Your task to perform on an android device: Open location settings Image 0: 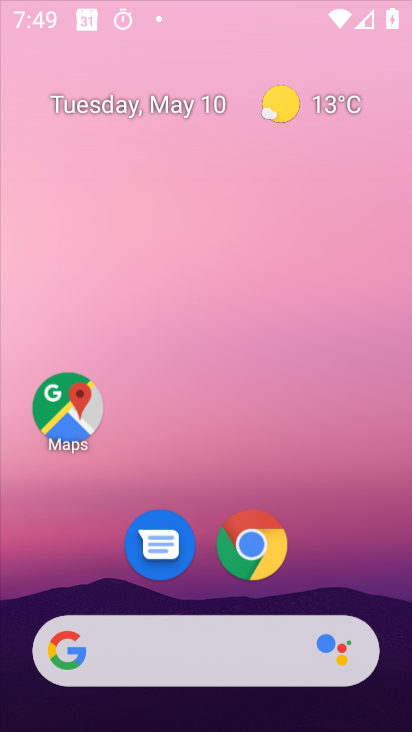
Step 0: drag from (207, 434) to (215, 57)
Your task to perform on an android device: Open location settings Image 1: 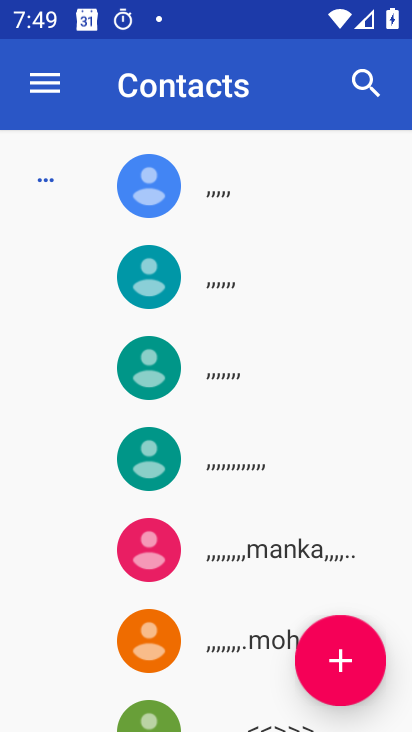
Step 1: press home button
Your task to perform on an android device: Open location settings Image 2: 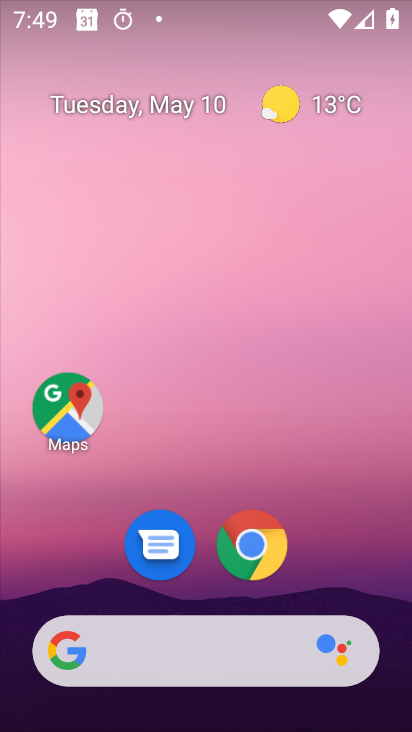
Step 2: drag from (204, 589) to (224, 51)
Your task to perform on an android device: Open location settings Image 3: 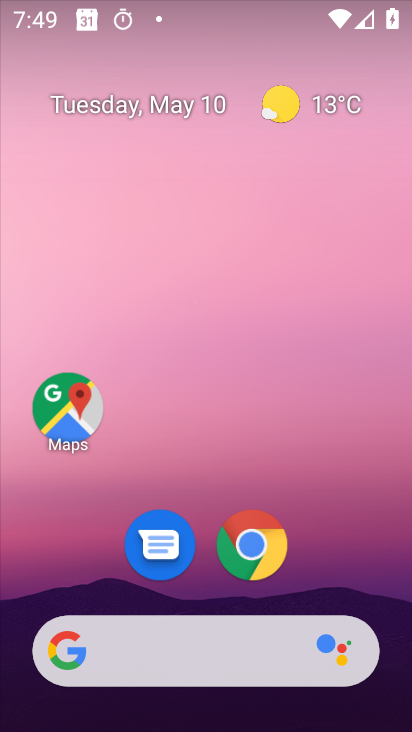
Step 3: drag from (193, 576) to (235, 102)
Your task to perform on an android device: Open location settings Image 4: 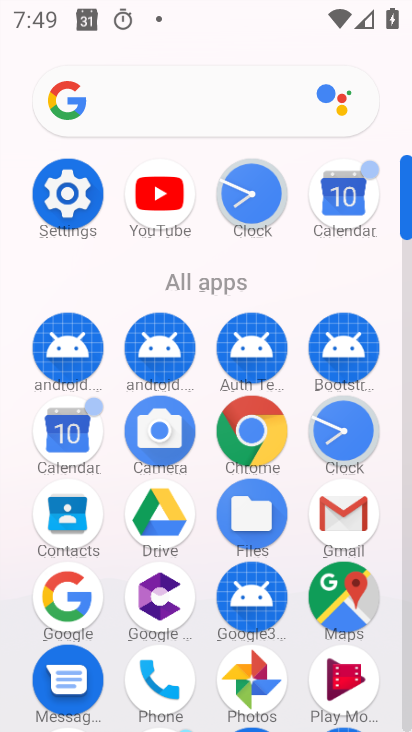
Step 4: click (70, 182)
Your task to perform on an android device: Open location settings Image 5: 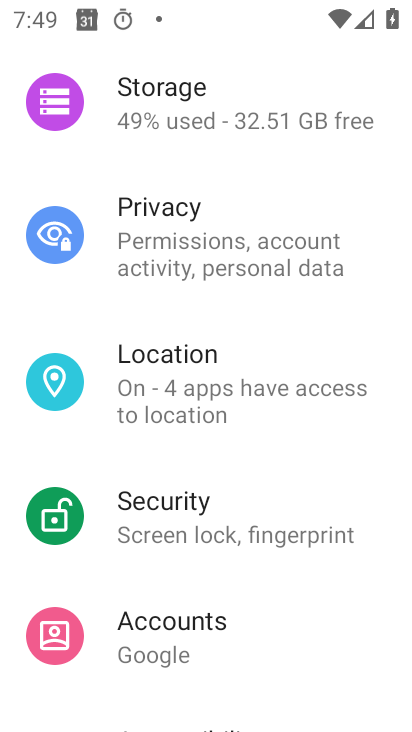
Step 5: click (225, 365)
Your task to perform on an android device: Open location settings Image 6: 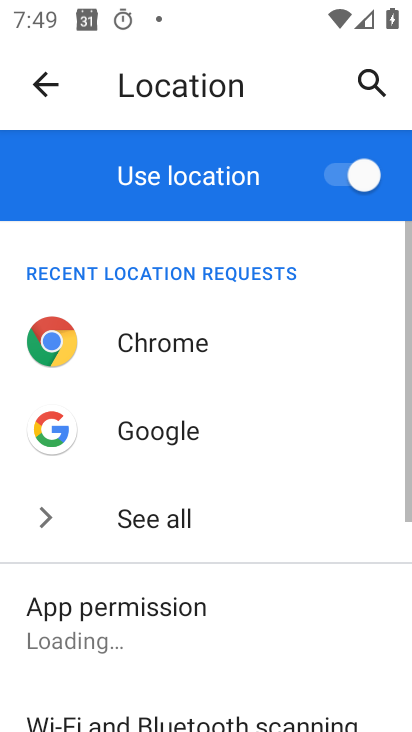
Step 6: drag from (159, 662) to (195, 208)
Your task to perform on an android device: Open location settings Image 7: 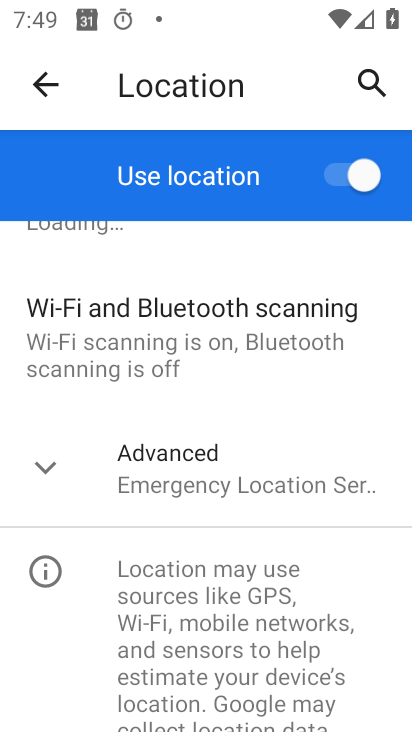
Step 7: click (52, 459)
Your task to perform on an android device: Open location settings Image 8: 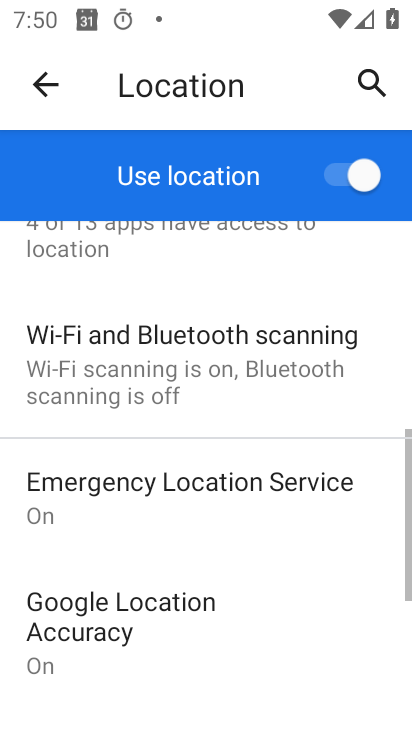
Step 8: task complete